Your task to perform on an android device: turn off priority inbox in the gmail app Image 0: 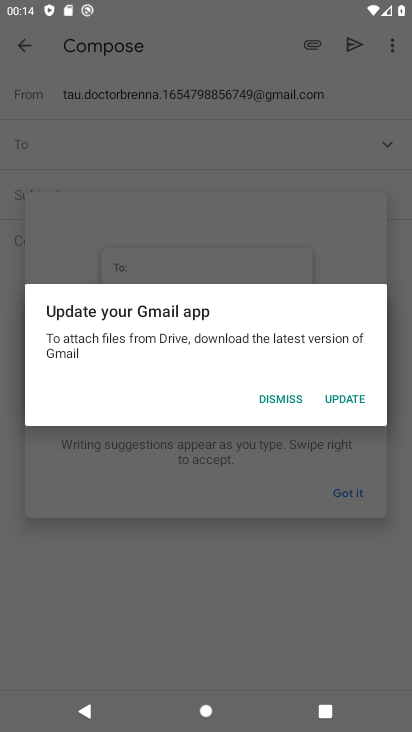
Step 0: press back button
Your task to perform on an android device: turn off priority inbox in the gmail app Image 1: 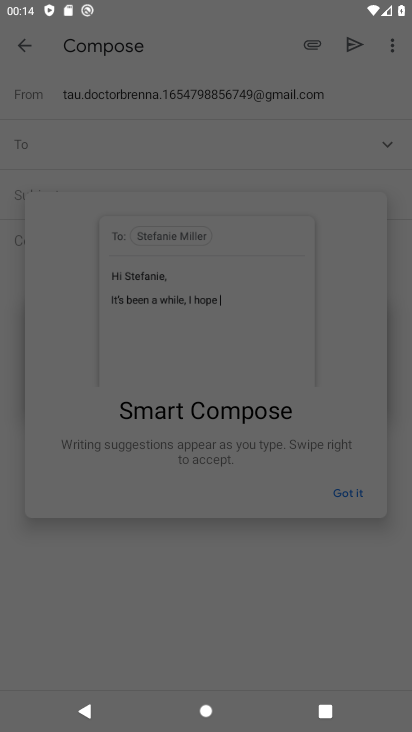
Step 1: press home button
Your task to perform on an android device: turn off priority inbox in the gmail app Image 2: 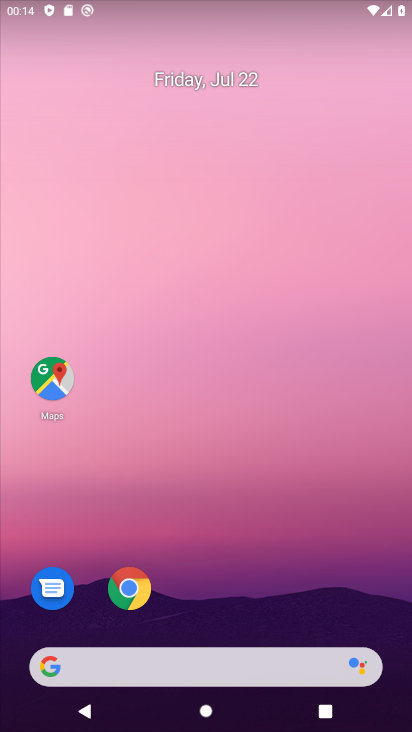
Step 2: drag from (193, 601) to (309, 6)
Your task to perform on an android device: turn off priority inbox in the gmail app Image 3: 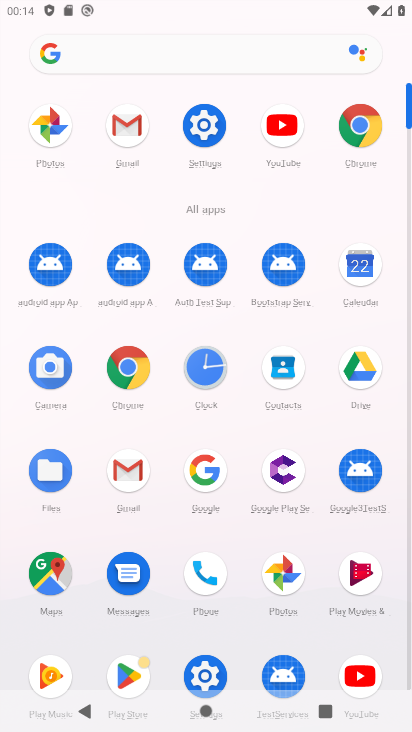
Step 3: click (125, 148)
Your task to perform on an android device: turn off priority inbox in the gmail app Image 4: 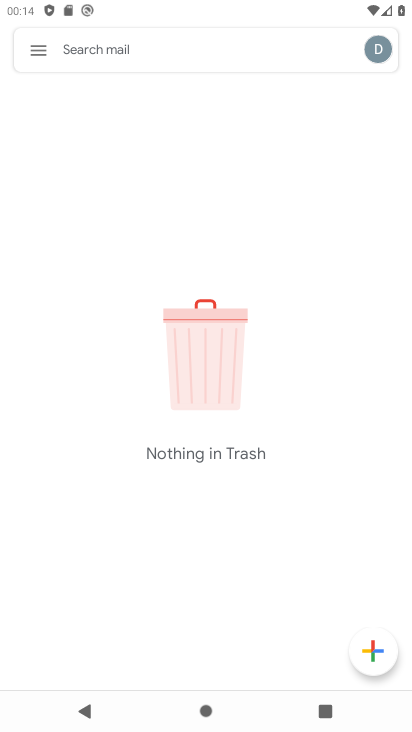
Step 4: click (34, 41)
Your task to perform on an android device: turn off priority inbox in the gmail app Image 5: 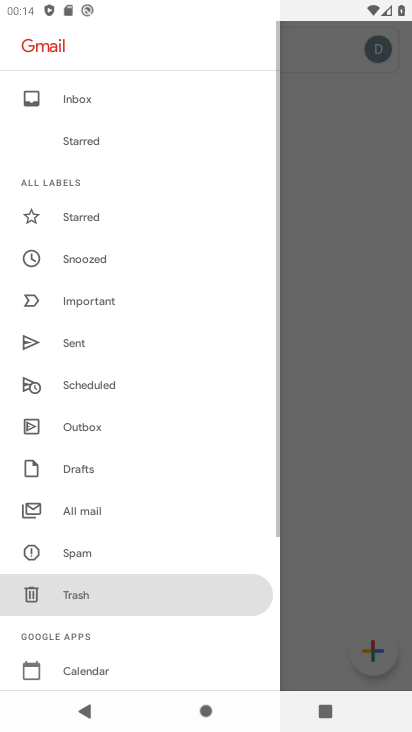
Step 5: drag from (114, 586) to (193, 37)
Your task to perform on an android device: turn off priority inbox in the gmail app Image 6: 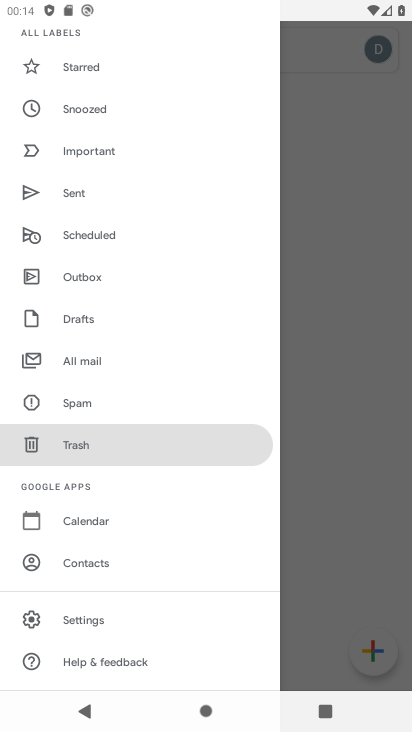
Step 6: click (76, 615)
Your task to perform on an android device: turn off priority inbox in the gmail app Image 7: 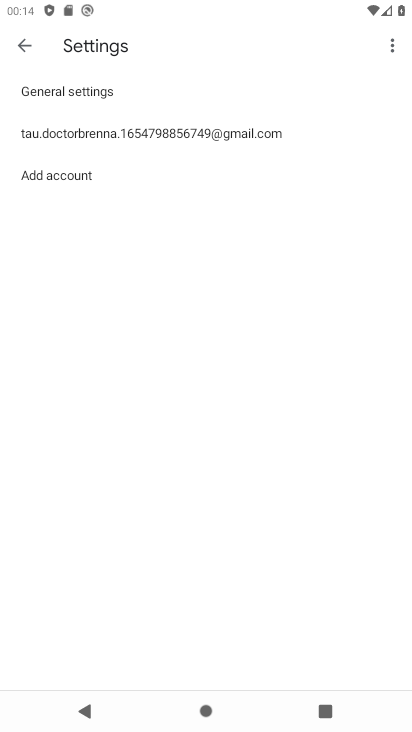
Step 7: click (97, 126)
Your task to perform on an android device: turn off priority inbox in the gmail app Image 8: 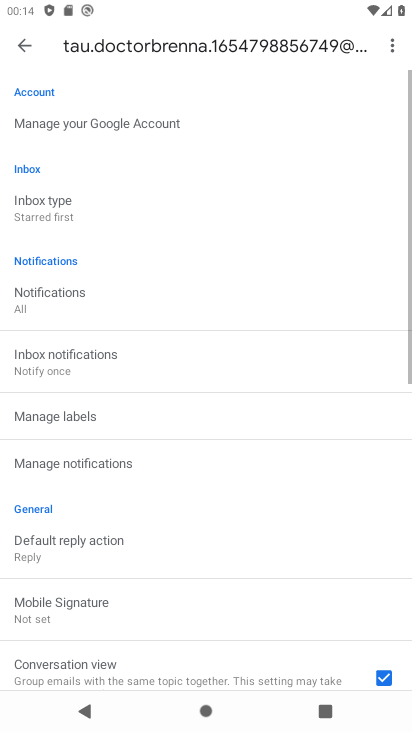
Step 8: click (69, 208)
Your task to perform on an android device: turn off priority inbox in the gmail app Image 9: 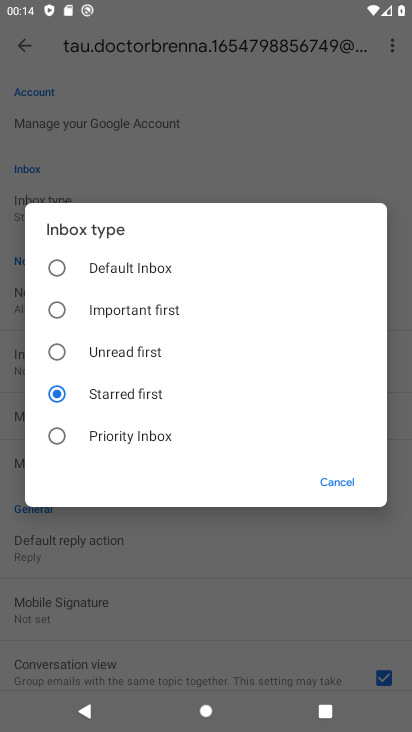
Step 9: task complete